Your task to perform on an android device: open chrome and create a bookmark for the current page Image 0: 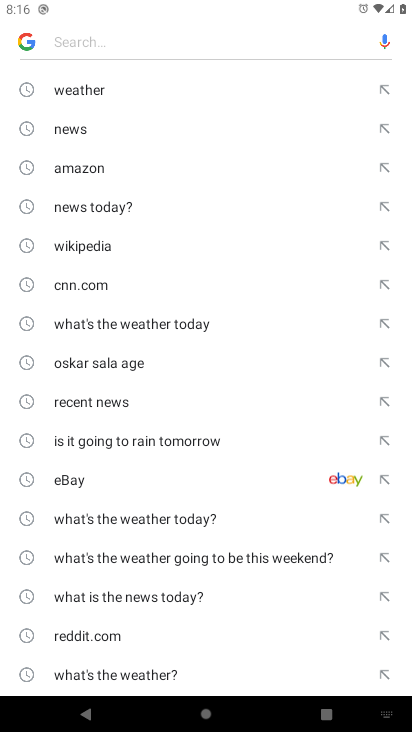
Step 0: press home button
Your task to perform on an android device: open chrome and create a bookmark for the current page Image 1: 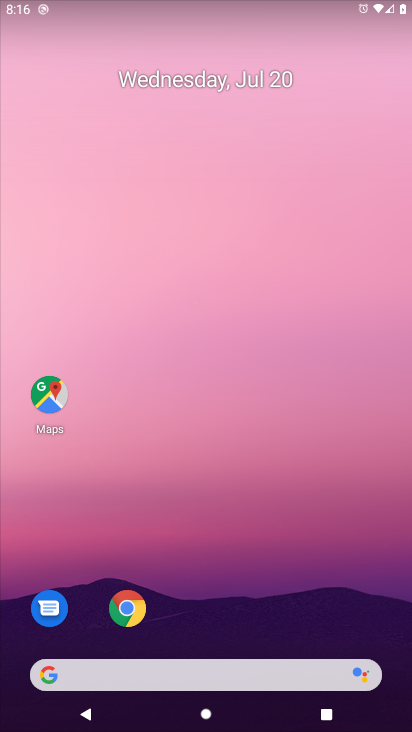
Step 1: drag from (217, 642) to (231, 23)
Your task to perform on an android device: open chrome and create a bookmark for the current page Image 2: 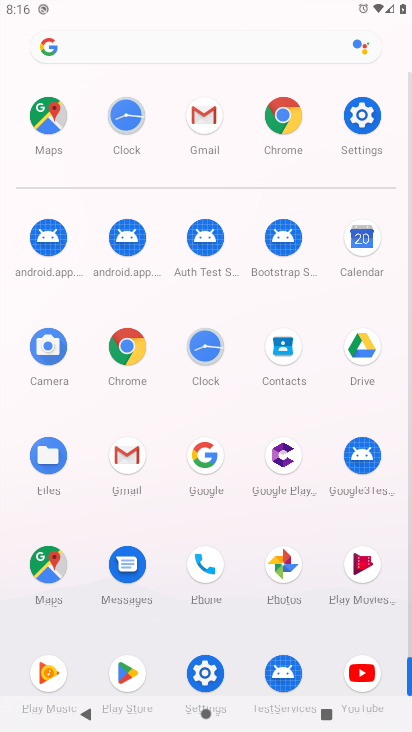
Step 2: click (125, 349)
Your task to perform on an android device: open chrome and create a bookmark for the current page Image 3: 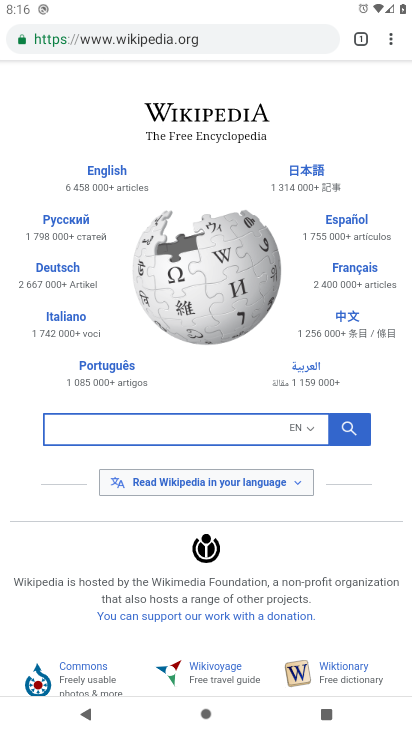
Step 3: click (394, 38)
Your task to perform on an android device: open chrome and create a bookmark for the current page Image 4: 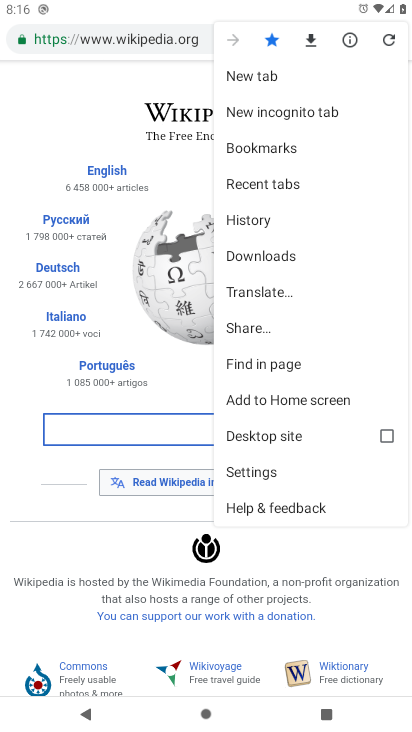
Step 4: task complete